Your task to perform on an android device: Open Yahoo.com Image 0: 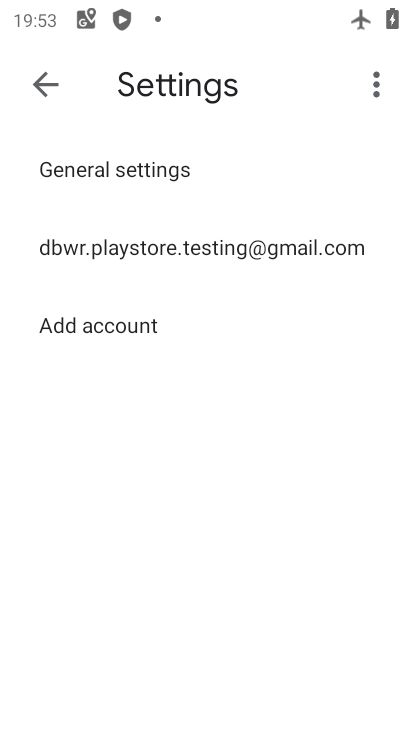
Step 0: press home button
Your task to perform on an android device: Open Yahoo.com Image 1: 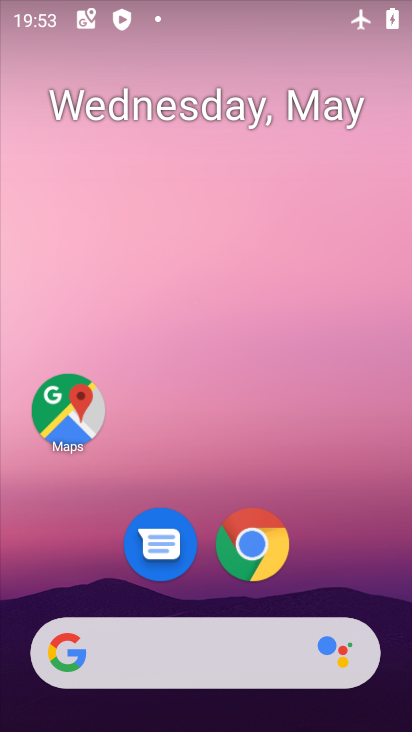
Step 1: click (245, 536)
Your task to perform on an android device: Open Yahoo.com Image 2: 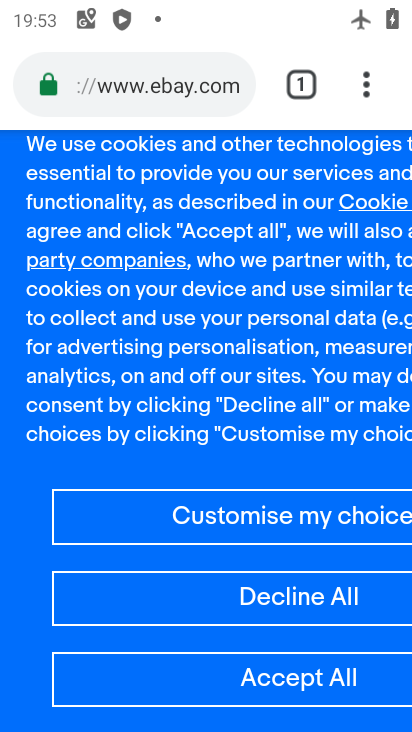
Step 2: click (309, 77)
Your task to perform on an android device: Open Yahoo.com Image 3: 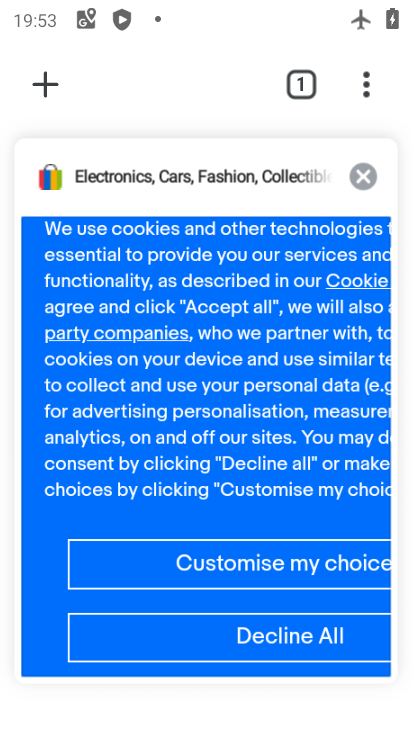
Step 3: drag from (328, 14) to (162, 627)
Your task to perform on an android device: Open Yahoo.com Image 4: 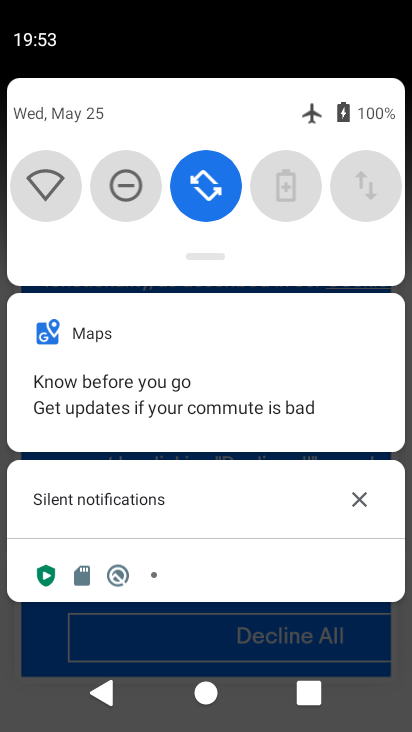
Step 4: drag from (232, 127) to (260, 717)
Your task to perform on an android device: Open Yahoo.com Image 5: 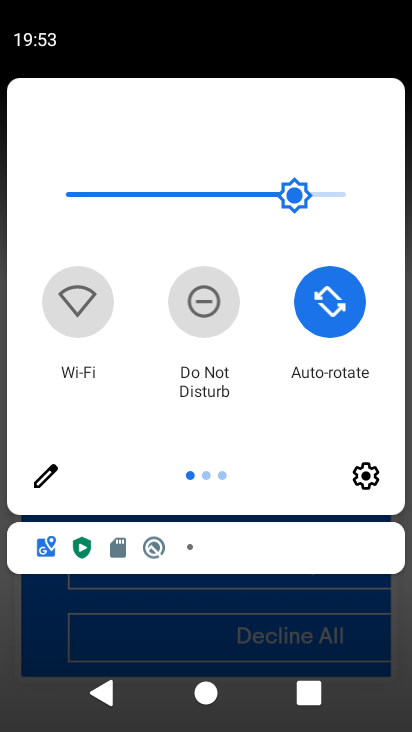
Step 5: drag from (348, 411) to (56, 421)
Your task to perform on an android device: Open Yahoo.com Image 6: 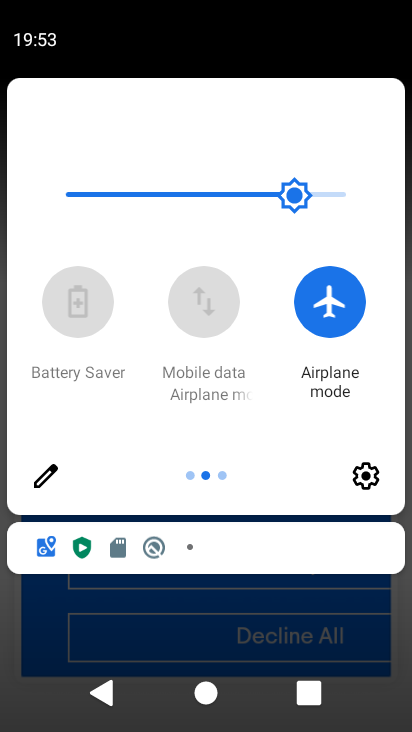
Step 6: click (332, 298)
Your task to perform on an android device: Open Yahoo.com Image 7: 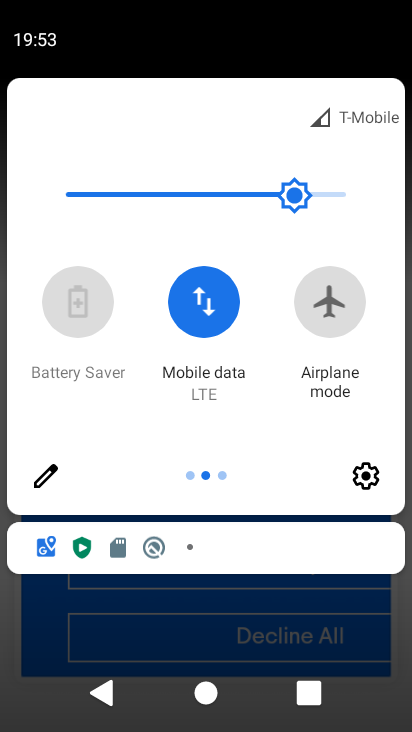
Step 7: task complete